Your task to perform on an android device: Search for jbl charge 4 on bestbuy.com, select the first entry, and add it to the cart. Image 0: 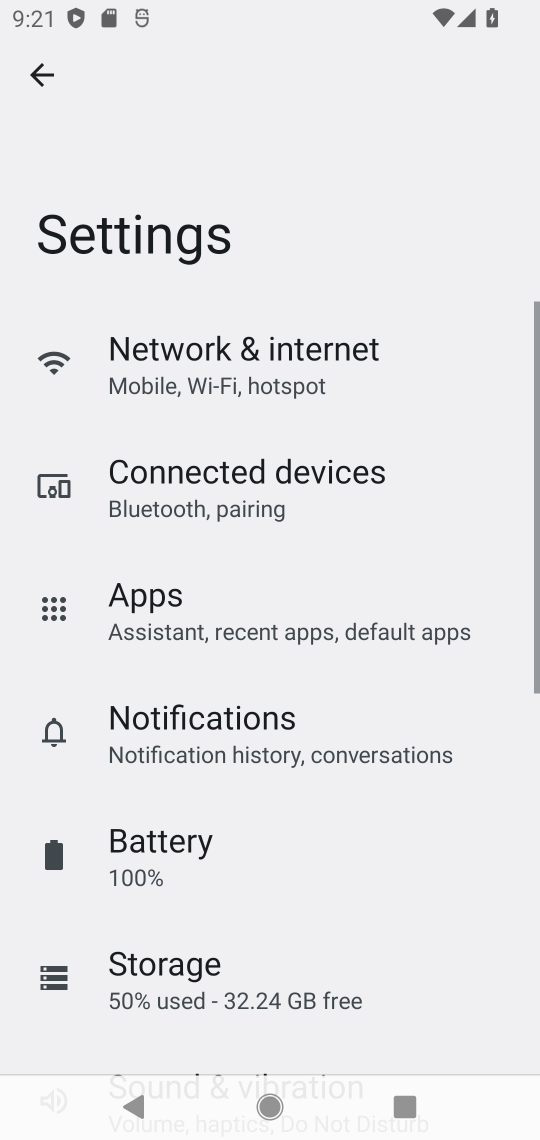
Step 0: press home button
Your task to perform on an android device: Search for jbl charge 4 on bestbuy.com, select the first entry, and add it to the cart. Image 1: 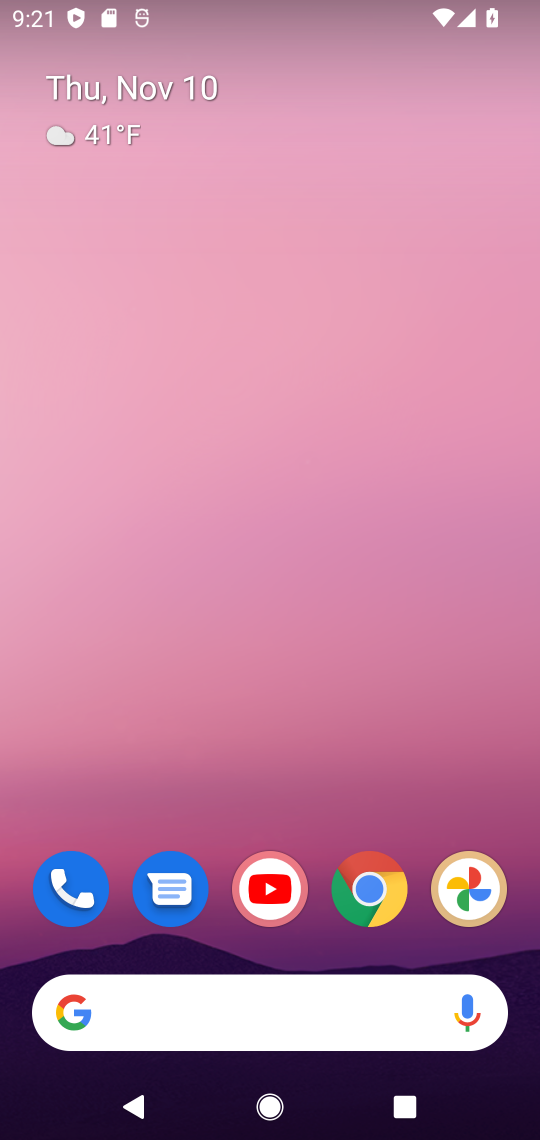
Step 1: click (376, 892)
Your task to perform on an android device: Search for jbl charge 4 on bestbuy.com, select the first entry, and add it to the cart. Image 2: 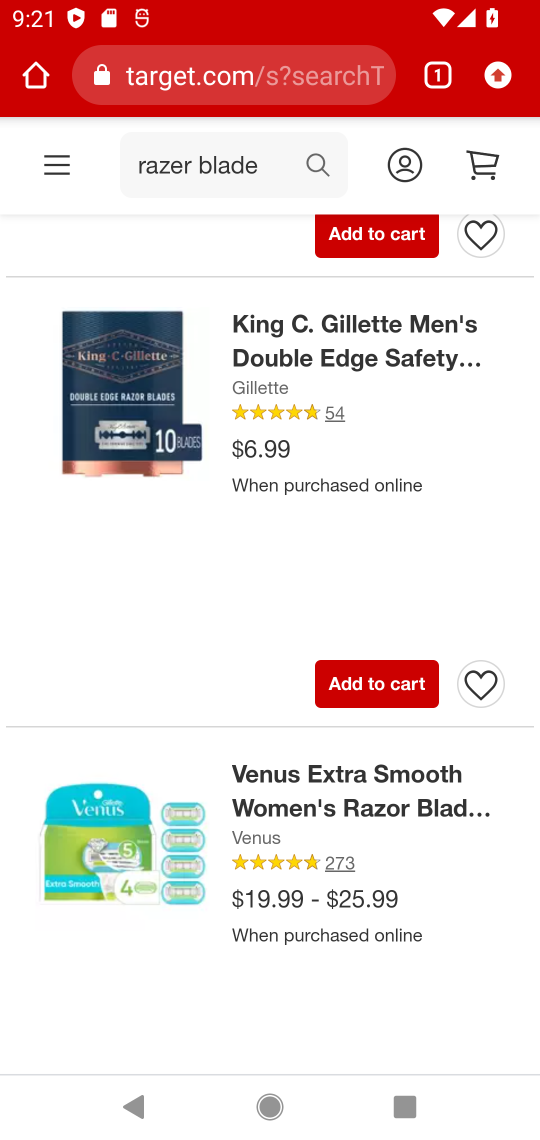
Step 2: click (202, 85)
Your task to perform on an android device: Search for jbl charge 4 on bestbuy.com, select the first entry, and add it to the cart. Image 3: 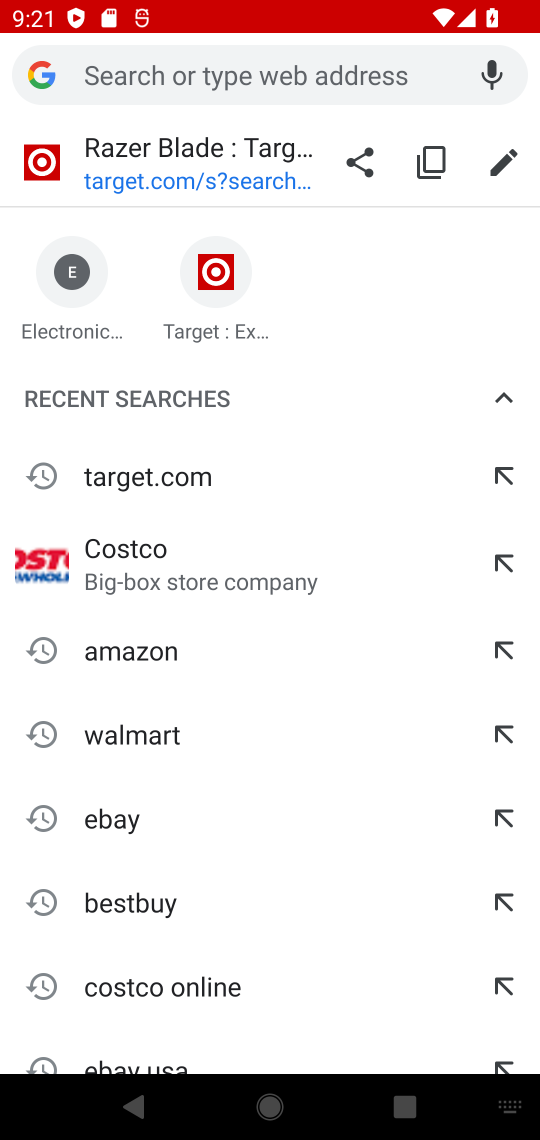
Step 3: click (112, 894)
Your task to perform on an android device: Search for jbl charge 4 on bestbuy.com, select the first entry, and add it to the cart. Image 4: 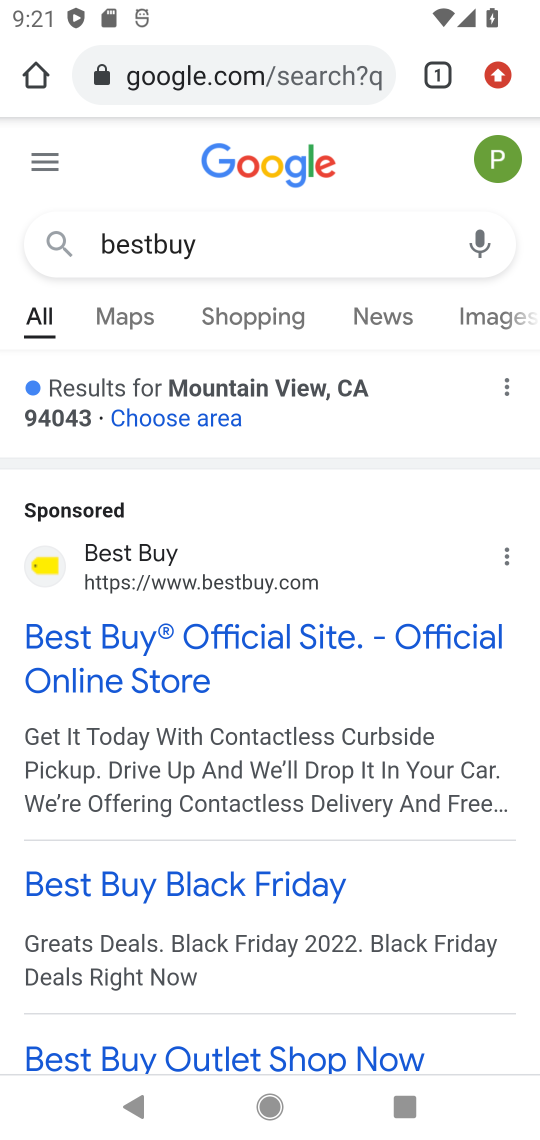
Step 4: click (116, 637)
Your task to perform on an android device: Search for jbl charge 4 on bestbuy.com, select the first entry, and add it to the cart. Image 5: 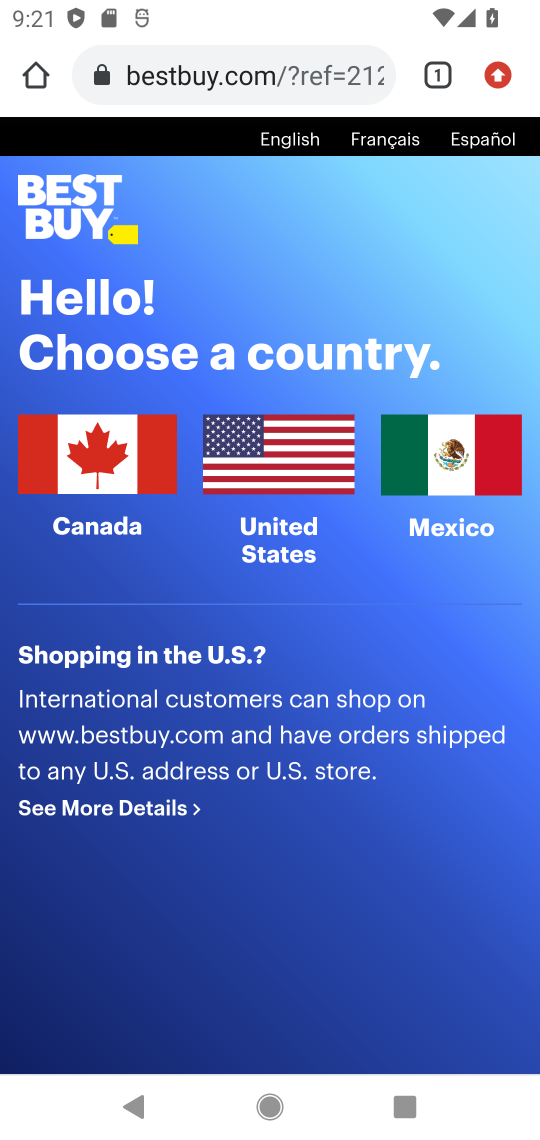
Step 5: click (87, 523)
Your task to perform on an android device: Search for jbl charge 4 on bestbuy.com, select the first entry, and add it to the cart. Image 6: 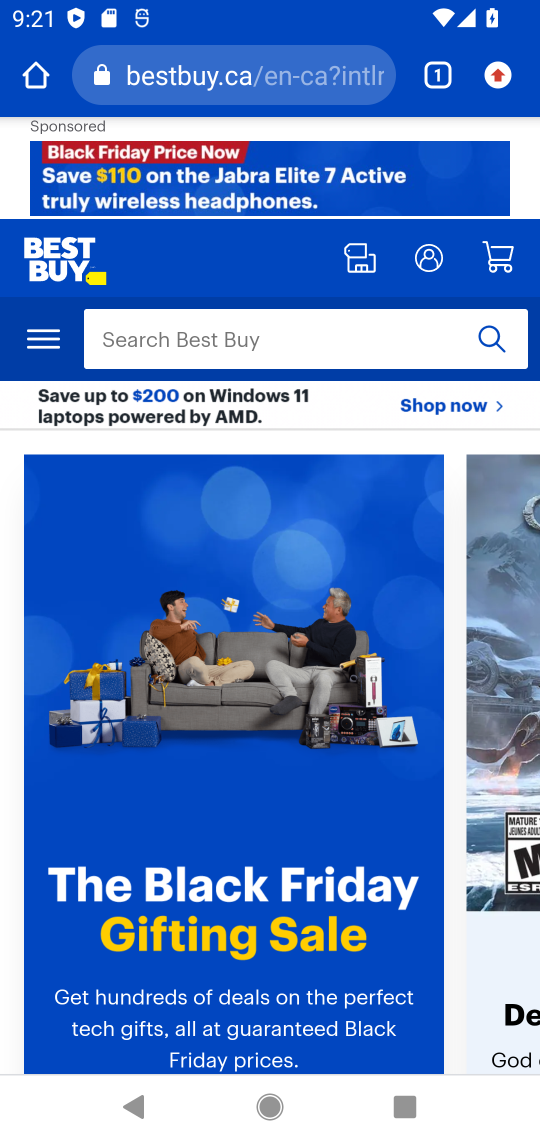
Step 6: click (316, 328)
Your task to perform on an android device: Search for jbl charge 4 on bestbuy.com, select the first entry, and add it to the cart. Image 7: 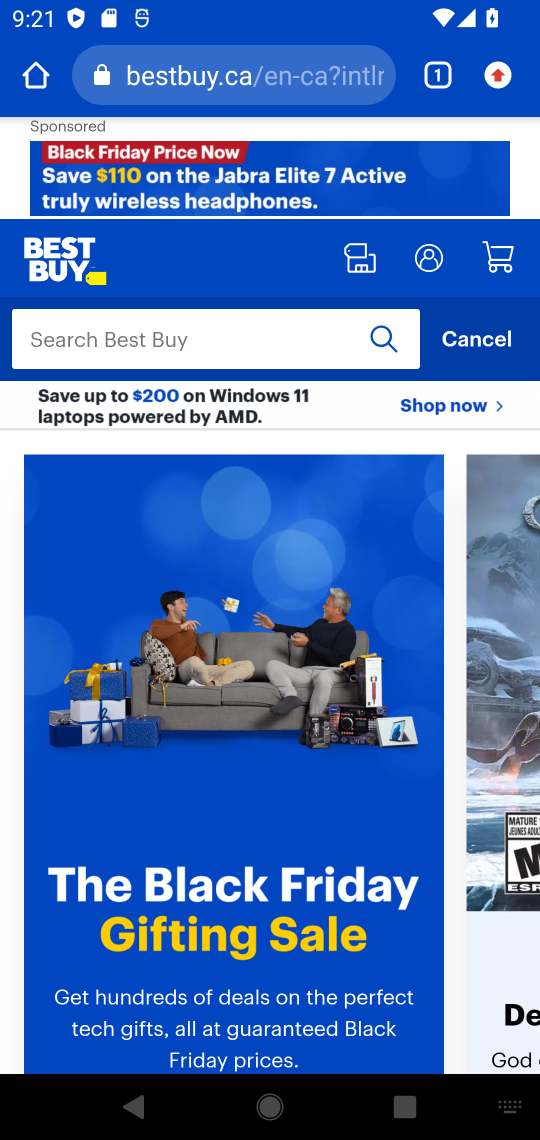
Step 7: press enter
Your task to perform on an android device: Search for jbl charge 4 on bestbuy.com, select the first entry, and add it to the cart. Image 8: 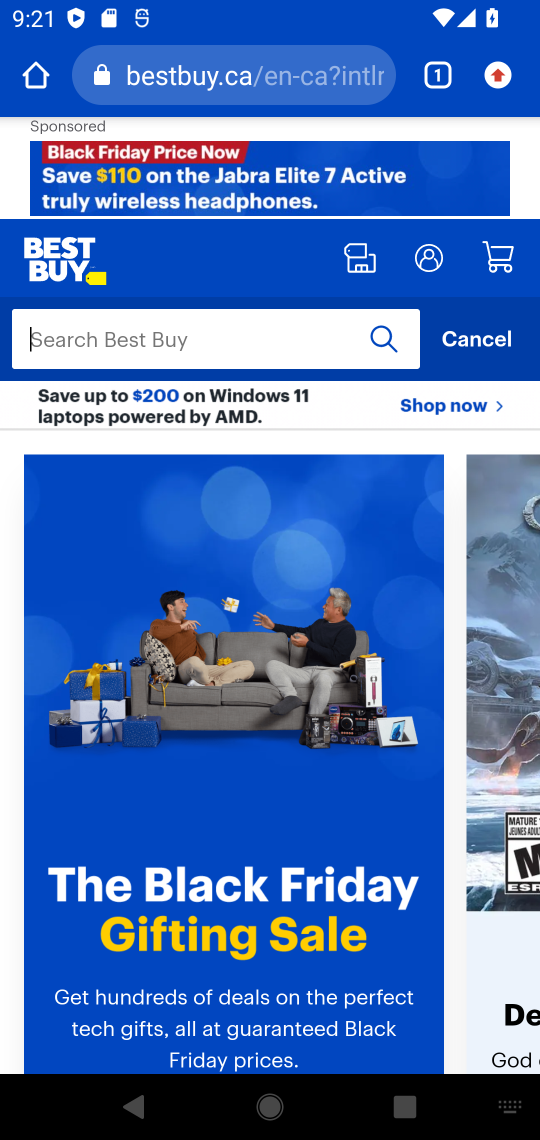
Step 8: type "jbl charge 4"
Your task to perform on an android device: Search for jbl charge 4 on bestbuy.com, select the first entry, and add it to the cart. Image 9: 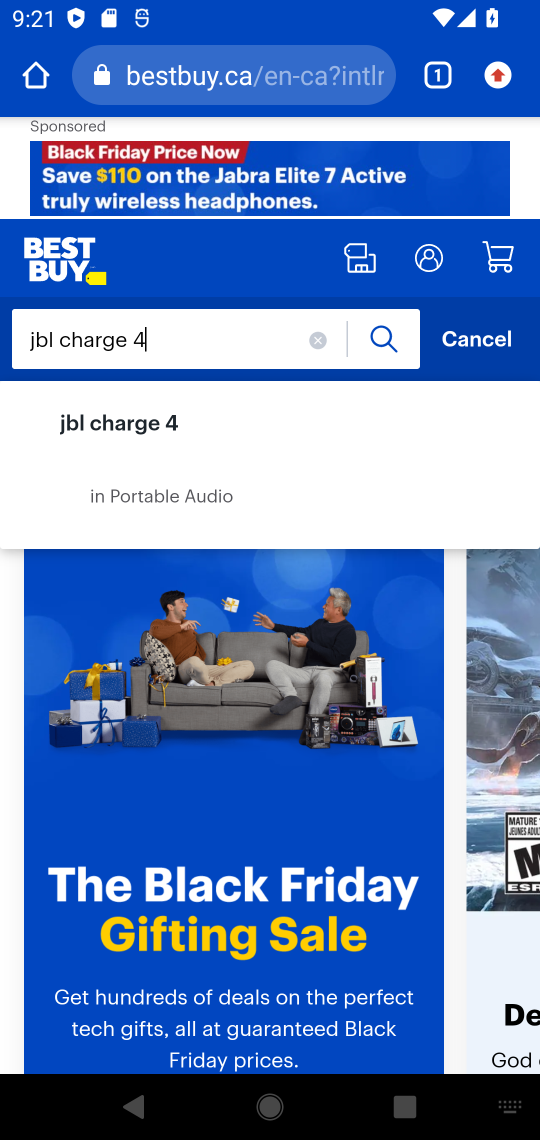
Step 9: press enter
Your task to perform on an android device: Search for jbl charge 4 on bestbuy.com, select the first entry, and add it to the cart. Image 10: 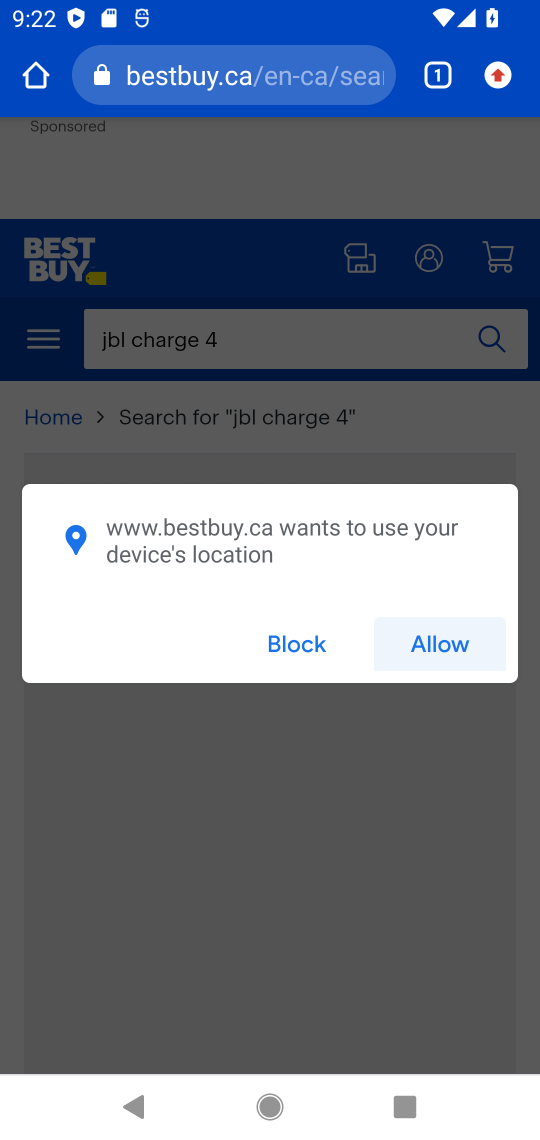
Step 10: click (432, 633)
Your task to perform on an android device: Search for jbl charge 4 on bestbuy.com, select the first entry, and add it to the cart. Image 11: 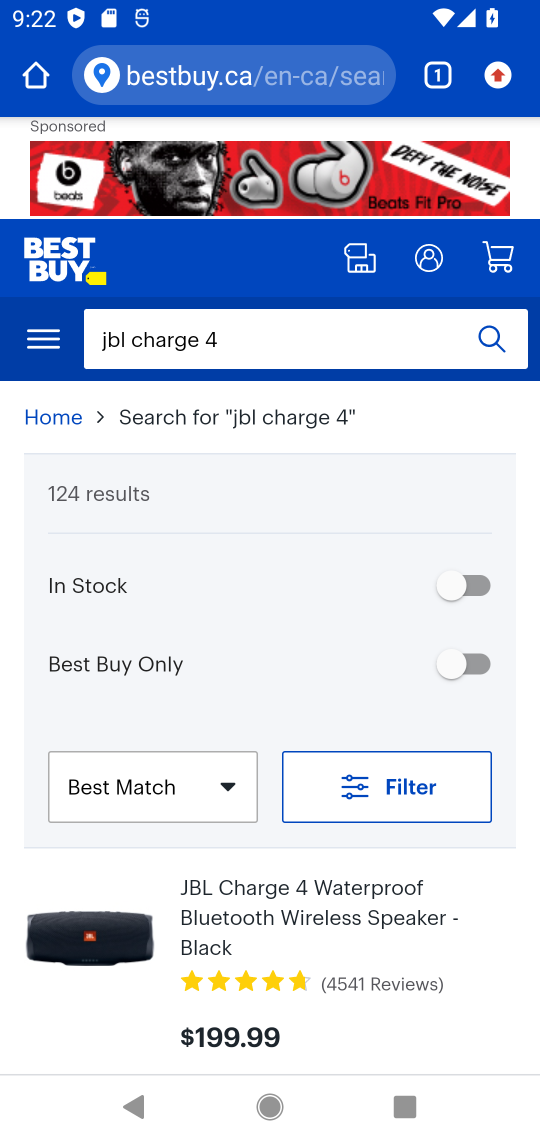
Step 11: drag from (297, 943) to (324, 532)
Your task to perform on an android device: Search for jbl charge 4 on bestbuy.com, select the first entry, and add it to the cart. Image 12: 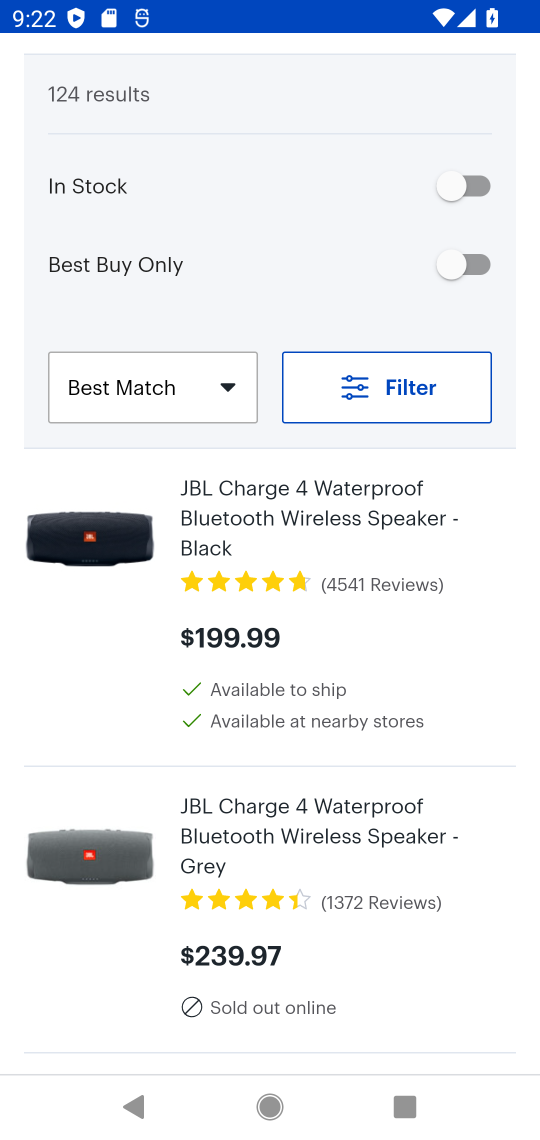
Step 12: click (306, 630)
Your task to perform on an android device: Search for jbl charge 4 on bestbuy.com, select the first entry, and add it to the cart. Image 13: 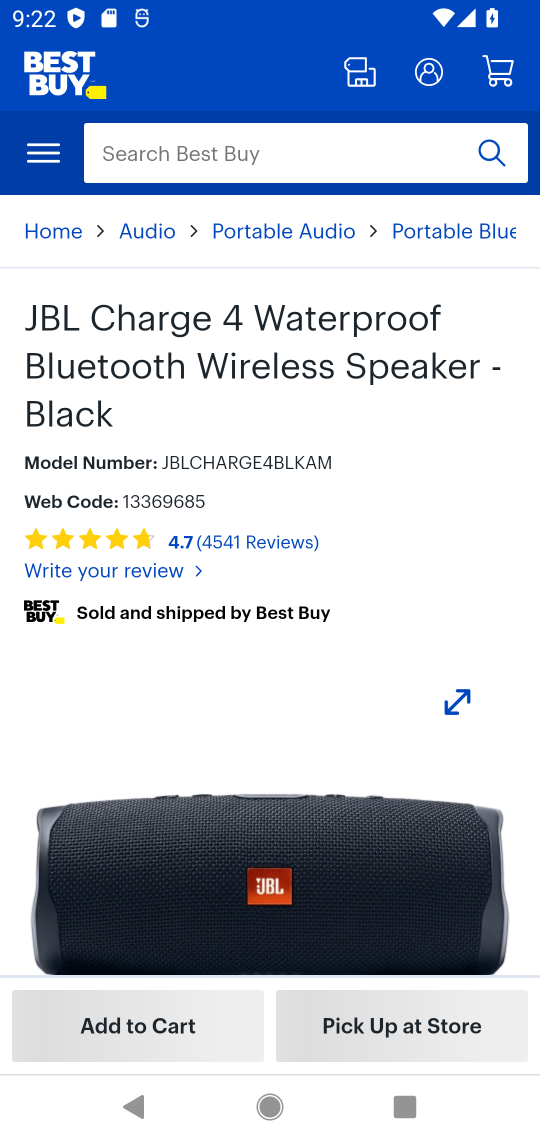
Step 13: drag from (338, 979) to (417, 662)
Your task to perform on an android device: Search for jbl charge 4 on bestbuy.com, select the first entry, and add it to the cart. Image 14: 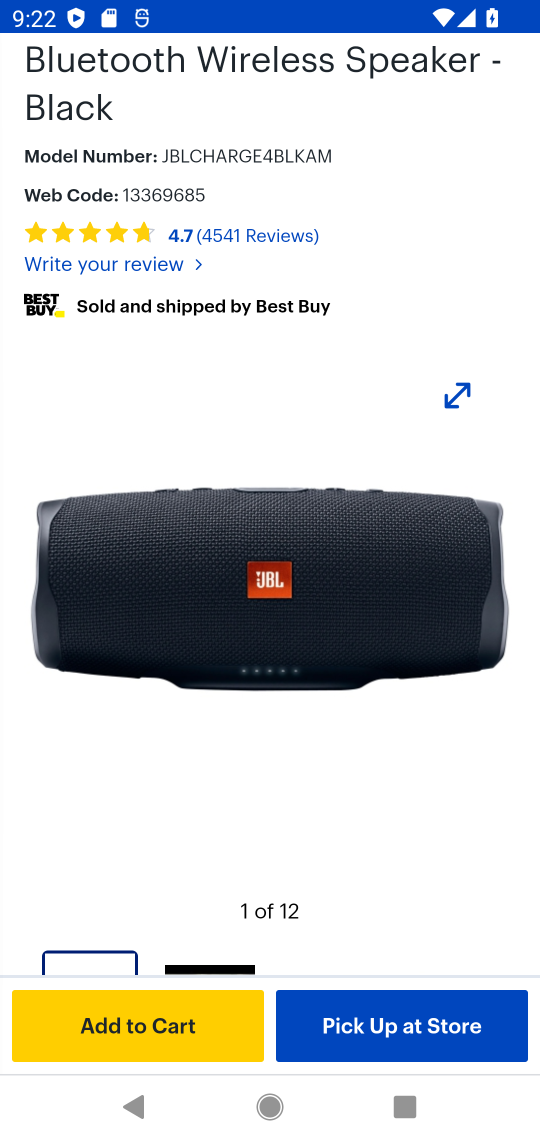
Step 14: click (152, 1026)
Your task to perform on an android device: Search for jbl charge 4 on bestbuy.com, select the first entry, and add it to the cart. Image 15: 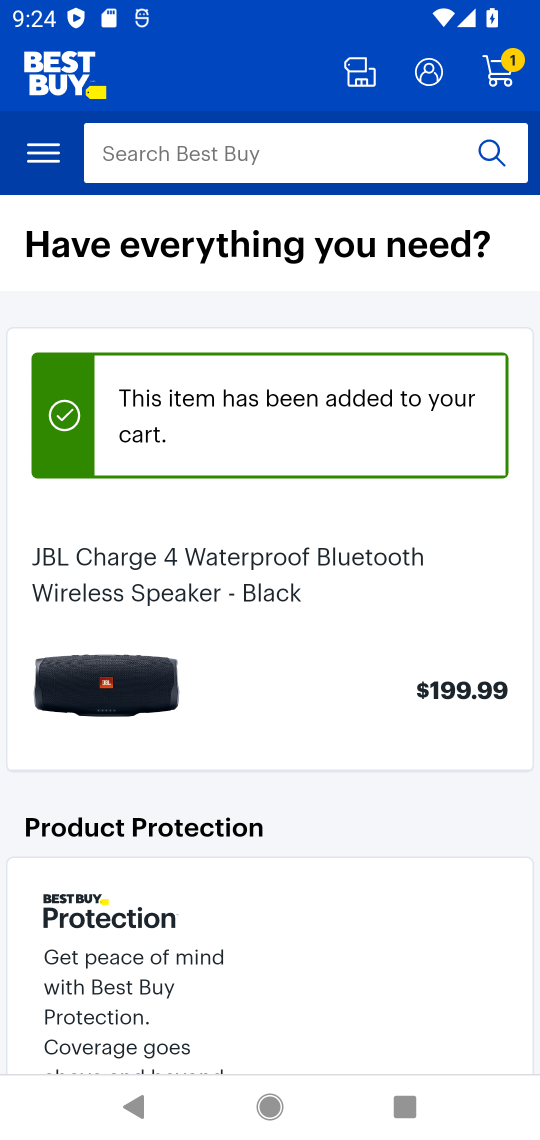
Step 15: task complete